Your task to perform on an android device: empty trash in google photos Image 0: 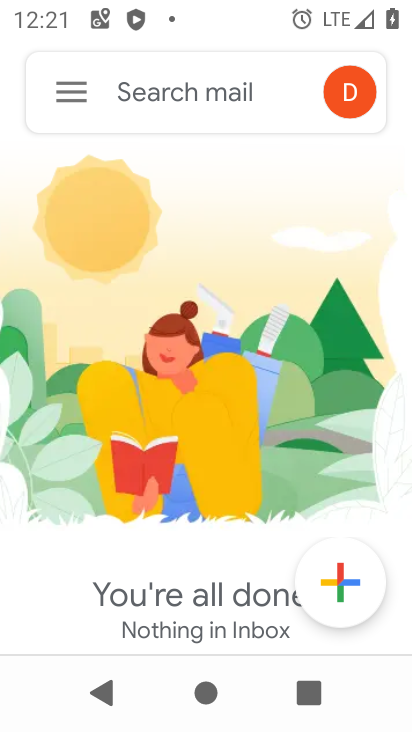
Step 0: press home button
Your task to perform on an android device: empty trash in google photos Image 1: 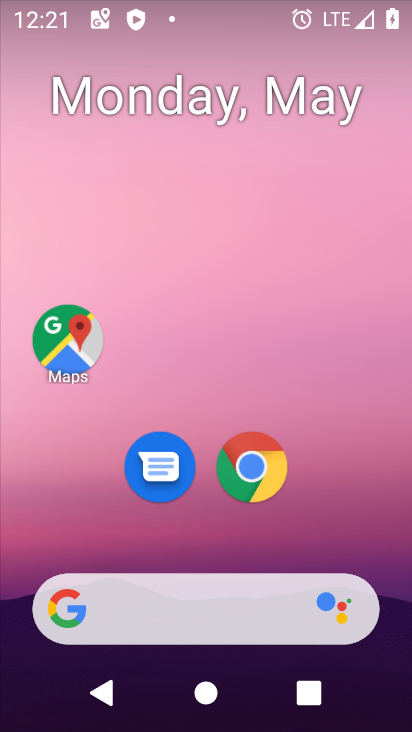
Step 1: drag from (392, 554) to (378, 4)
Your task to perform on an android device: empty trash in google photos Image 2: 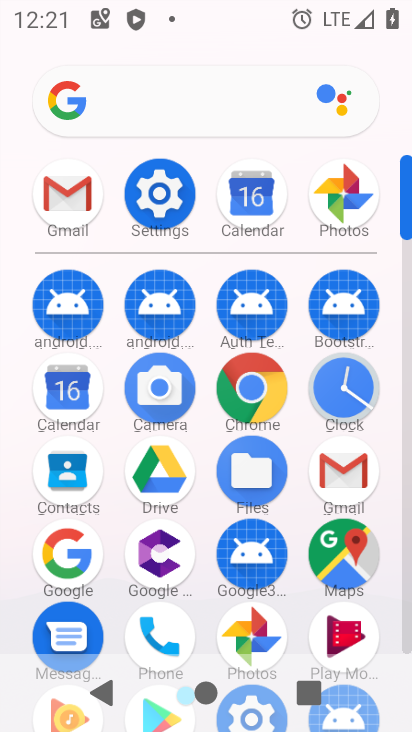
Step 2: click (340, 203)
Your task to perform on an android device: empty trash in google photos Image 3: 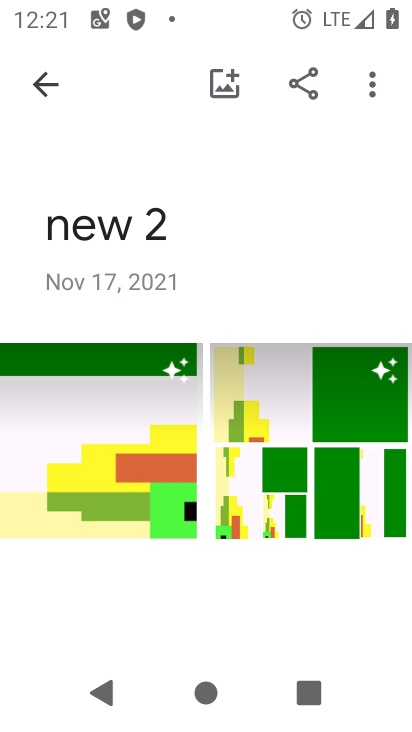
Step 3: click (41, 89)
Your task to perform on an android device: empty trash in google photos Image 4: 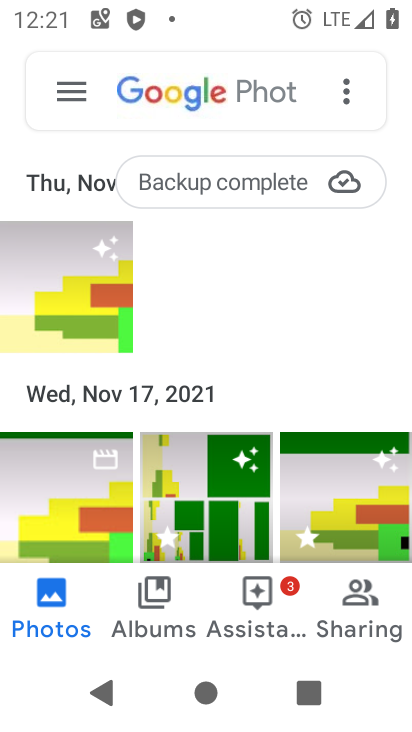
Step 4: click (85, 98)
Your task to perform on an android device: empty trash in google photos Image 5: 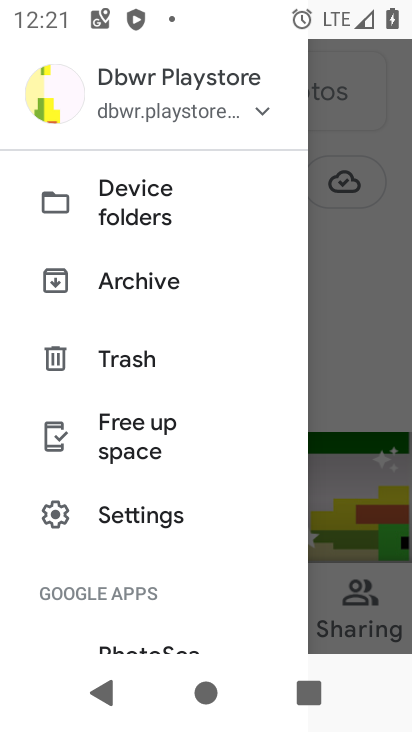
Step 5: click (142, 352)
Your task to perform on an android device: empty trash in google photos Image 6: 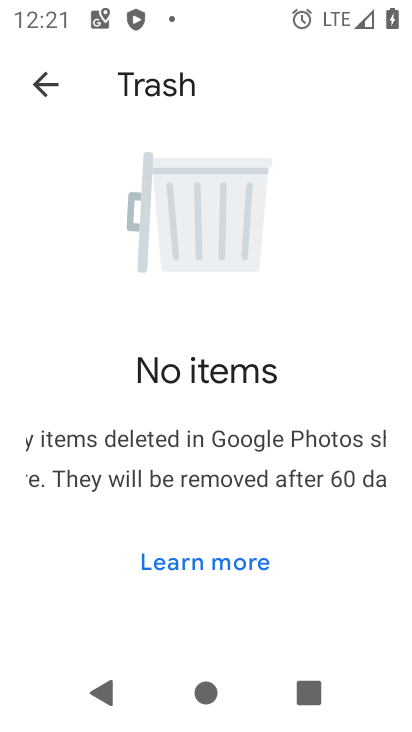
Step 6: task complete